Your task to perform on an android device: Go to sound settings Image 0: 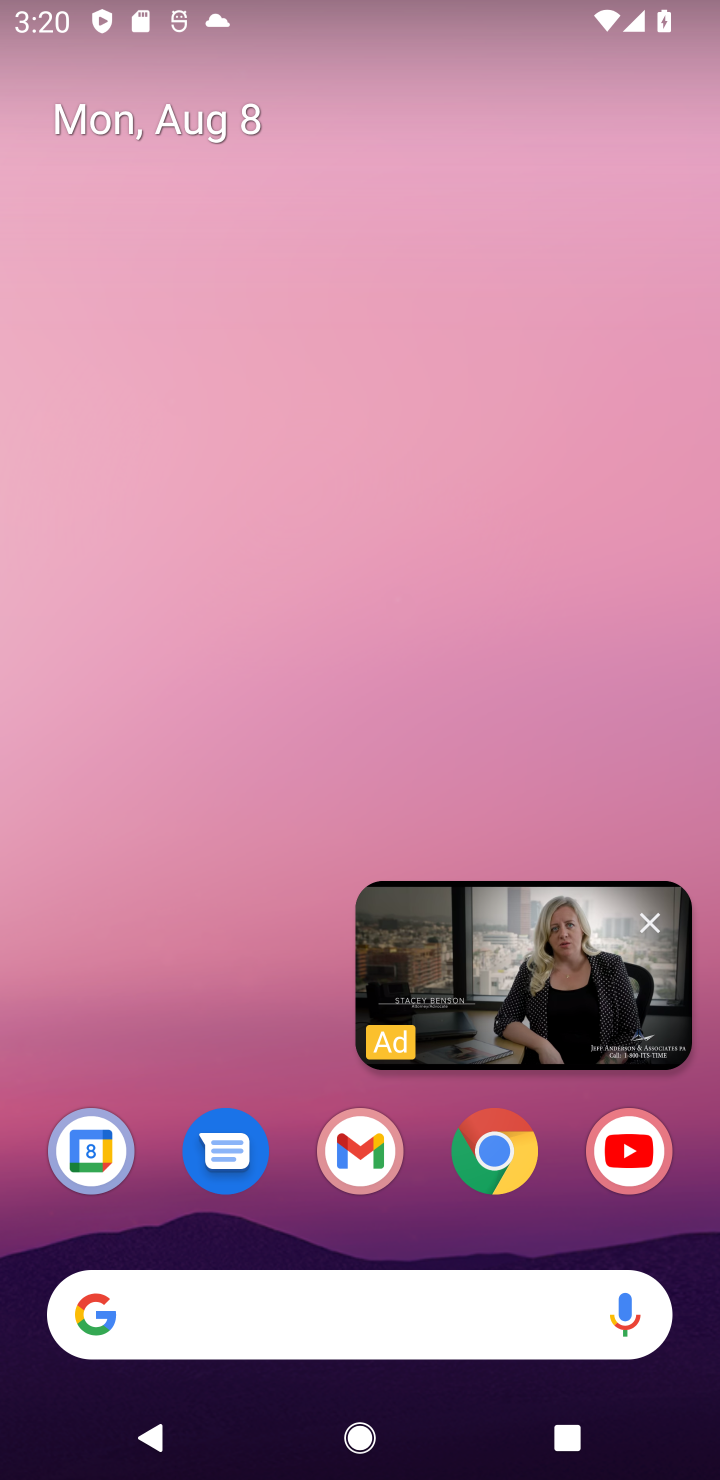
Step 0: click (636, 931)
Your task to perform on an android device: Go to sound settings Image 1: 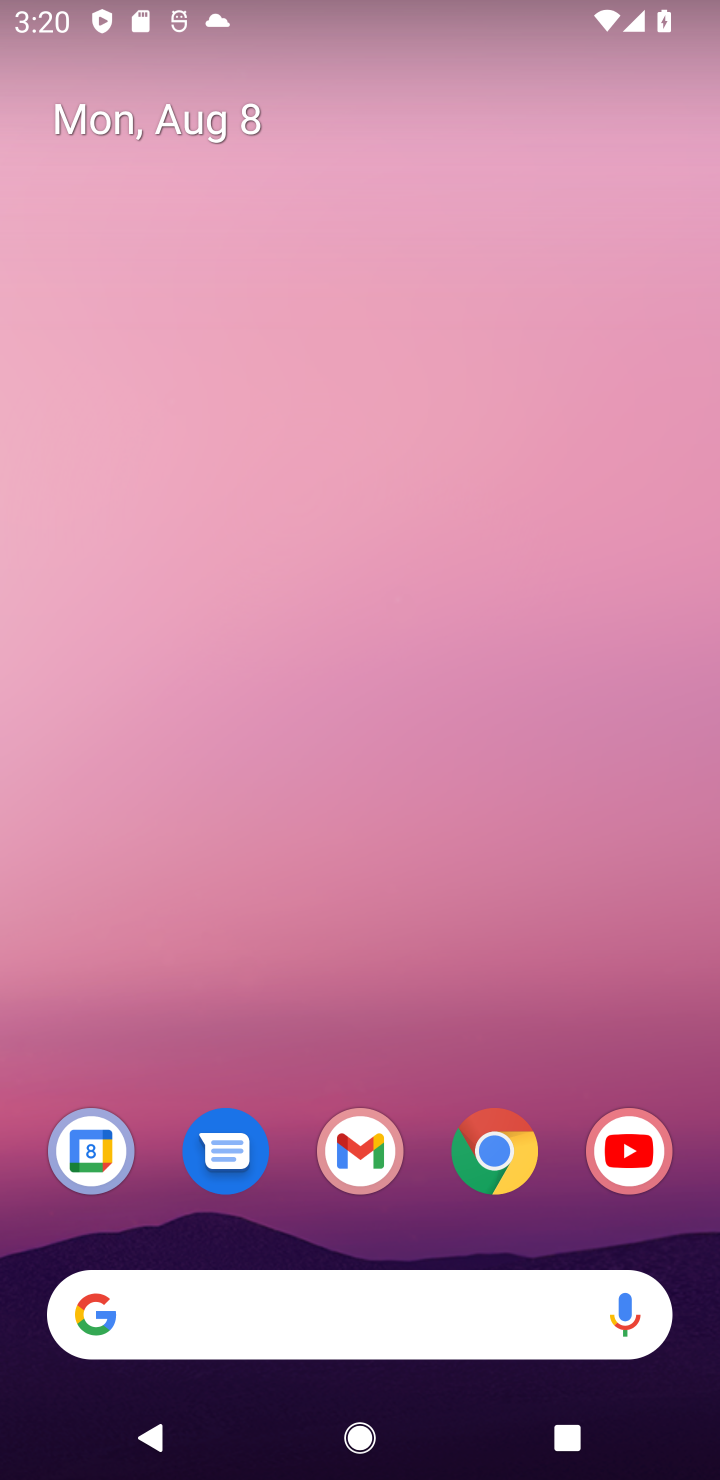
Step 1: drag from (366, 977) to (503, 132)
Your task to perform on an android device: Go to sound settings Image 2: 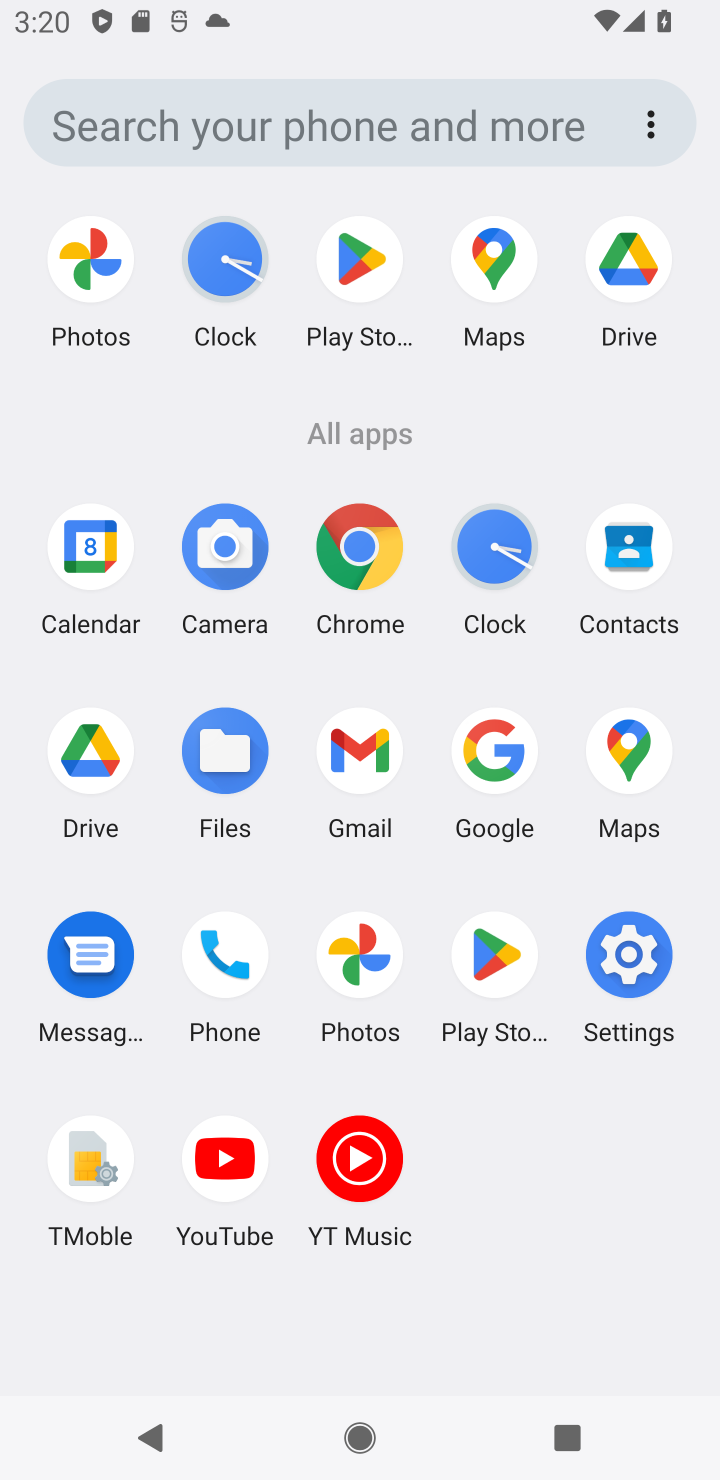
Step 2: click (652, 980)
Your task to perform on an android device: Go to sound settings Image 3: 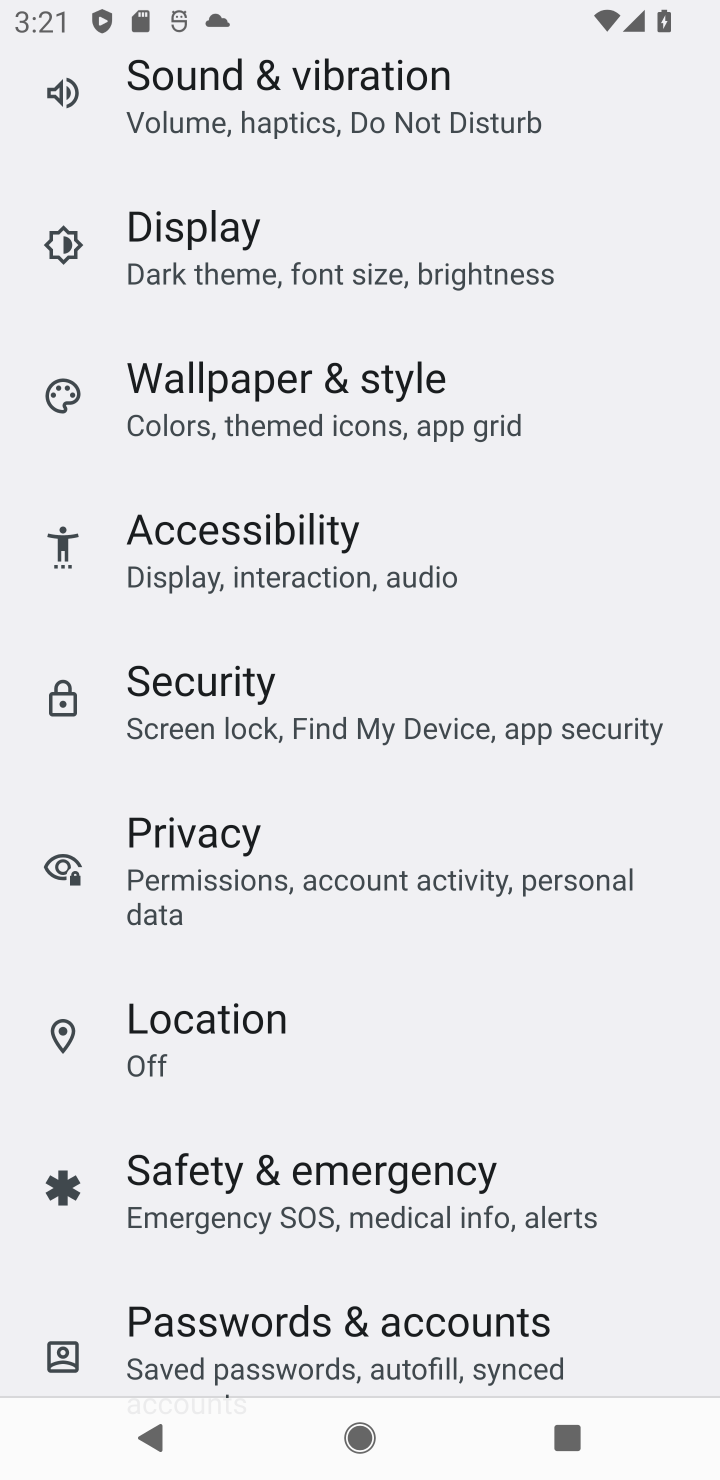
Step 3: click (266, 116)
Your task to perform on an android device: Go to sound settings Image 4: 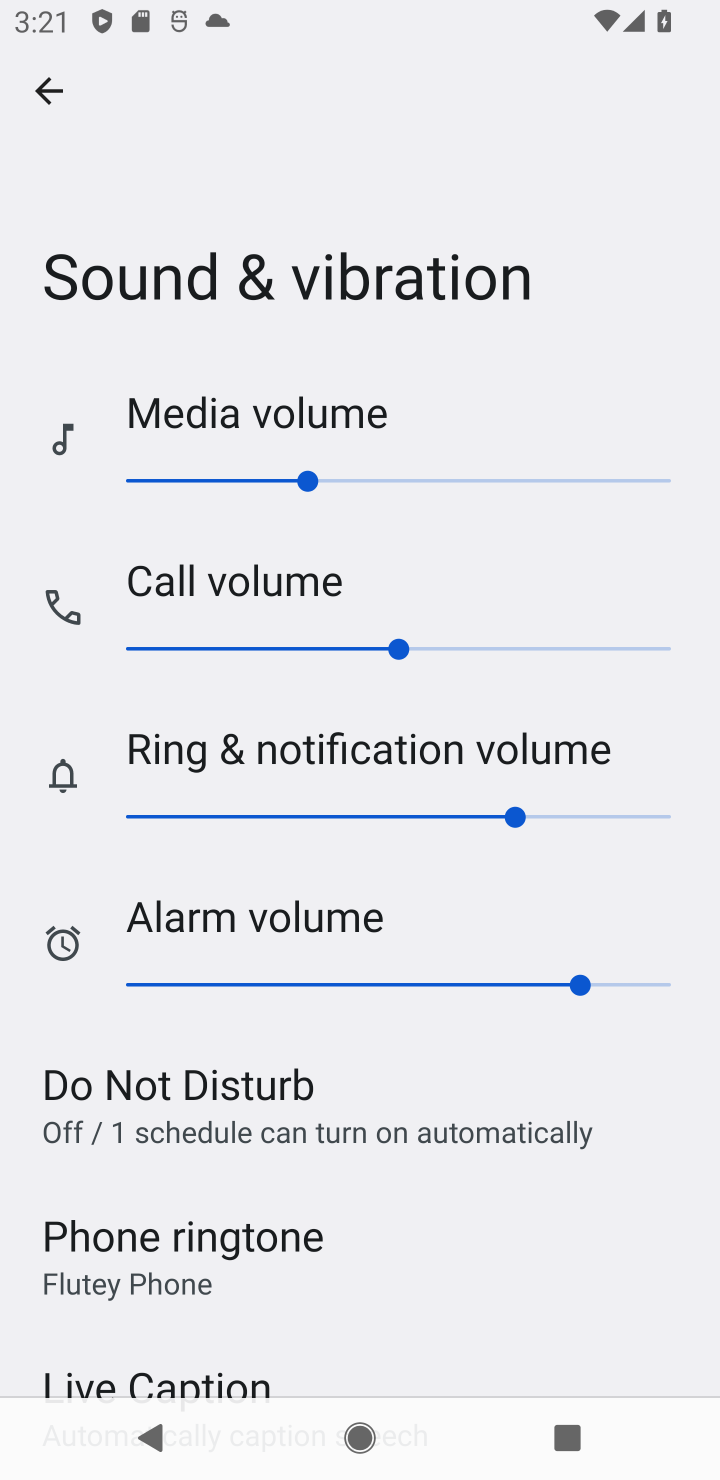
Step 4: task complete